Your task to perform on an android device: toggle sleep mode Image 0: 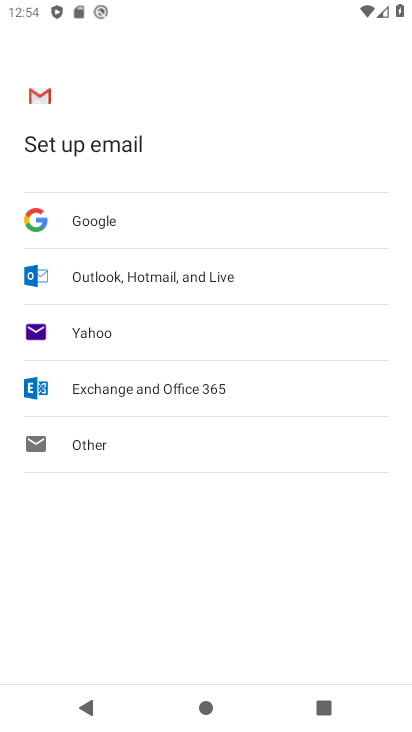
Step 0: press home button
Your task to perform on an android device: toggle sleep mode Image 1: 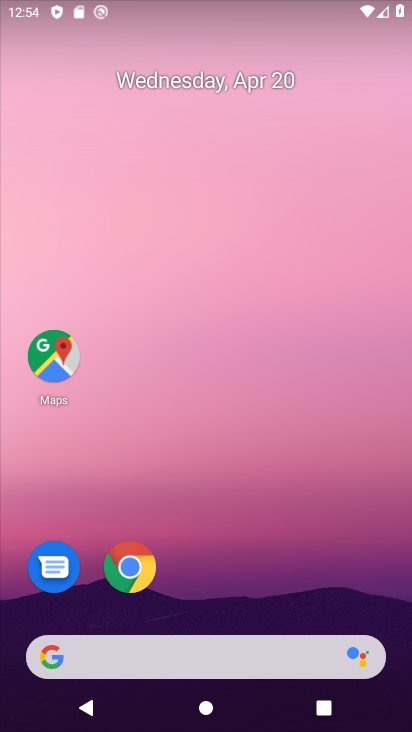
Step 1: drag from (262, 481) to (294, 38)
Your task to perform on an android device: toggle sleep mode Image 2: 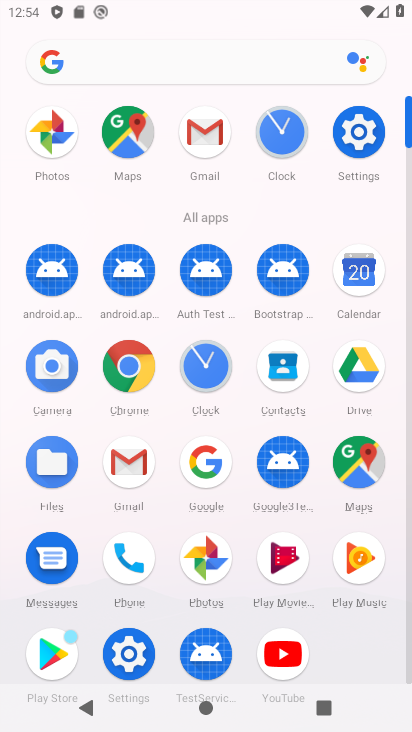
Step 2: click (359, 136)
Your task to perform on an android device: toggle sleep mode Image 3: 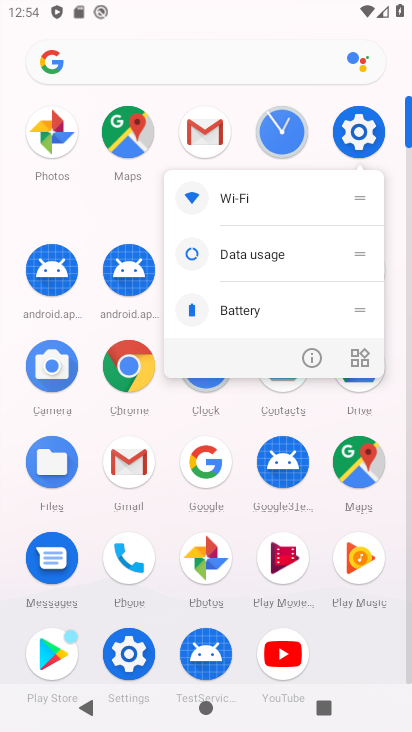
Step 3: click (363, 141)
Your task to perform on an android device: toggle sleep mode Image 4: 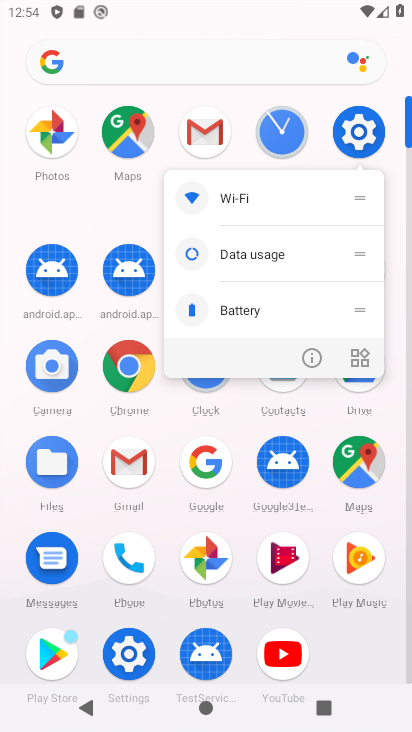
Step 4: click (347, 131)
Your task to perform on an android device: toggle sleep mode Image 5: 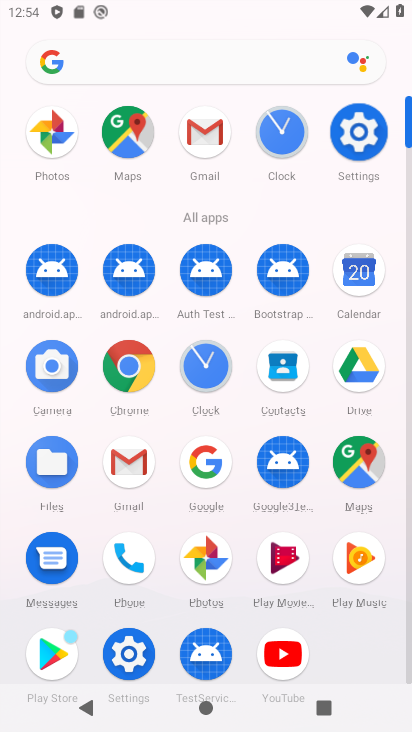
Step 5: click (347, 131)
Your task to perform on an android device: toggle sleep mode Image 6: 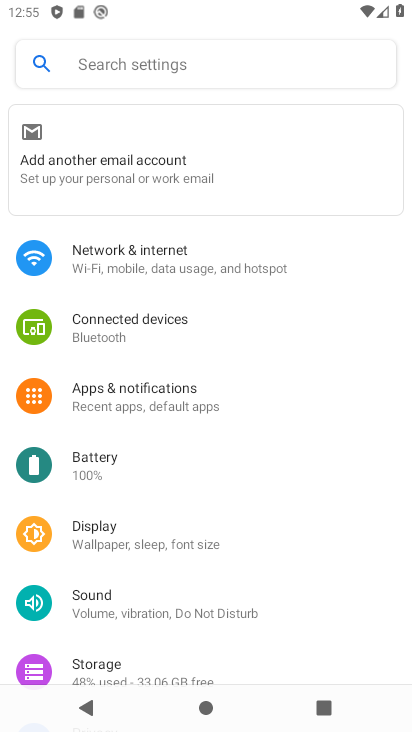
Step 6: click (124, 536)
Your task to perform on an android device: toggle sleep mode Image 7: 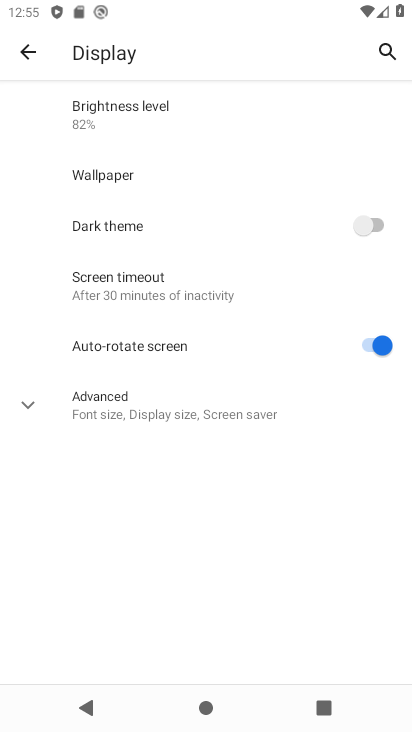
Step 7: click (152, 286)
Your task to perform on an android device: toggle sleep mode Image 8: 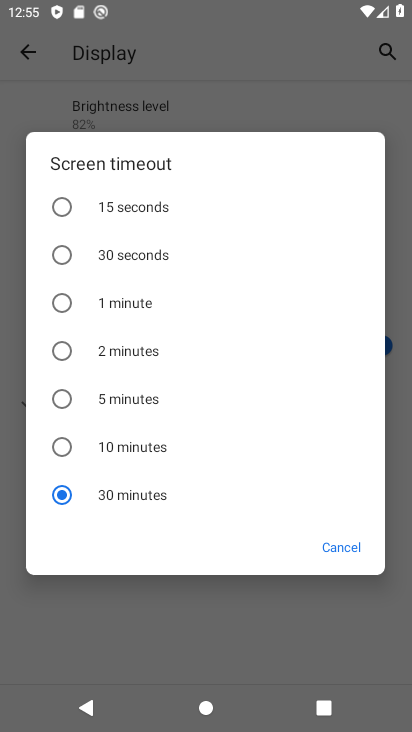
Step 8: click (111, 347)
Your task to perform on an android device: toggle sleep mode Image 9: 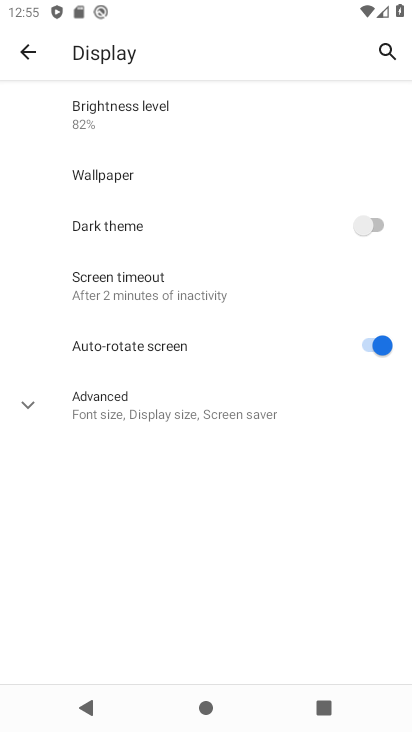
Step 9: task complete